Your task to perform on an android device: Open calendar and show me the second week of next month Image 0: 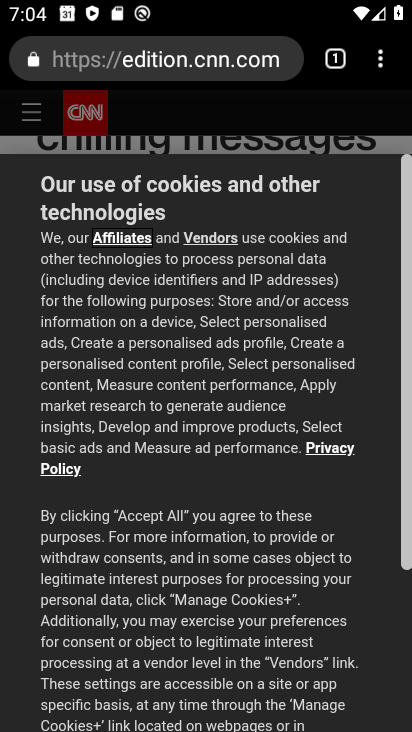
Step 0: press back button
Your task to perform on an android device: Open calendar and show me the second week of next month Image 1: 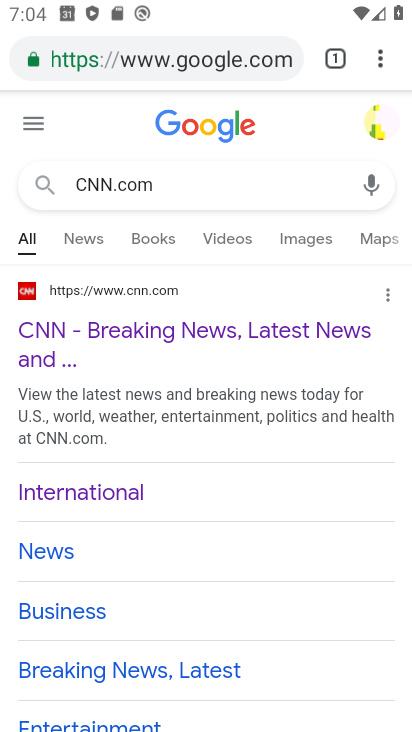
Step 1: press back button
Your task to perform on an android device: Open calendar and show me the second week of next month Image 2: 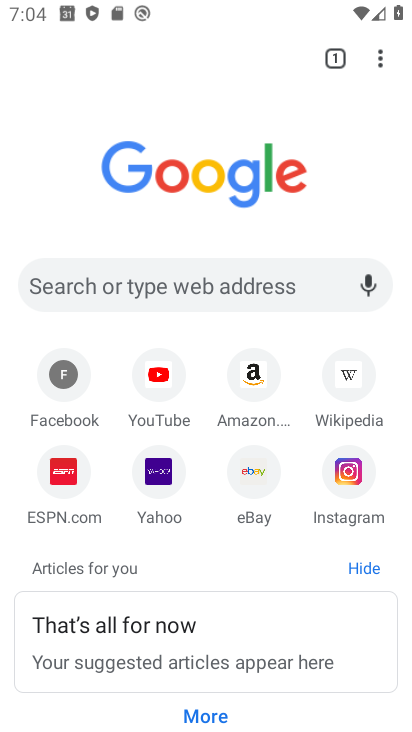
Step 2: press back button
Your task to perform on an android device: Open calendar and show me the second week of next month Image 3: 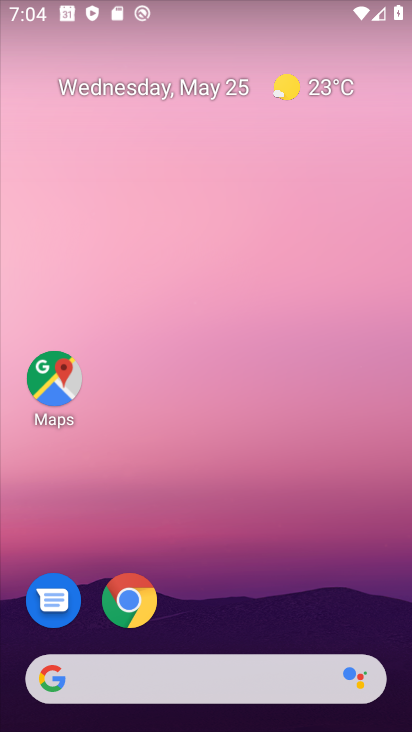
Step 3: drag from (256, 594) to (282, 134)
Your task to perform on an android device: Open calendar and show me the second week of next month Image 4: 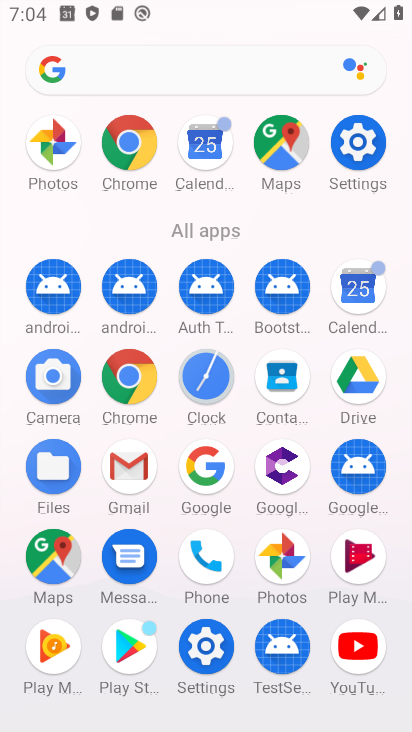
Step 4: click (360, 288)
Your task to perform on an android device: Open calendar and show me the second week of next month Image 5: 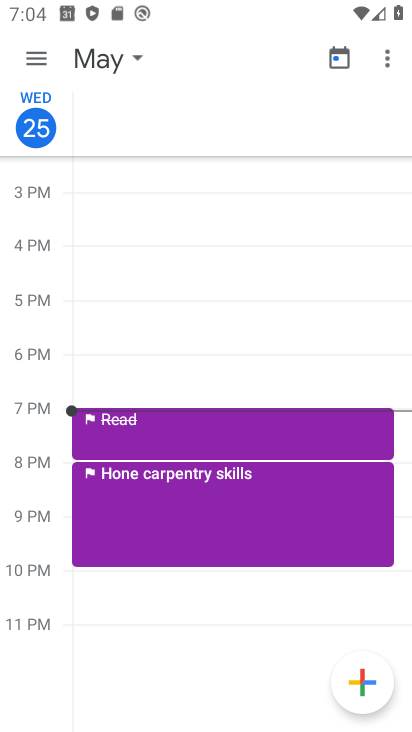
Step 5: click (135, 59)
Your task to perform on an android device: Open calendar and show me the second week of next month Image 6: 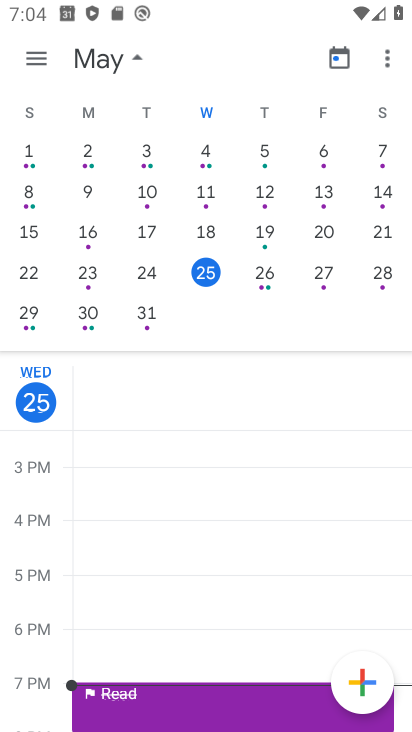
Step 6: drag from (351, 252) to (71, 292)
Your task to perform on an android device: Open calendar and show me the second week of next month Image 7: 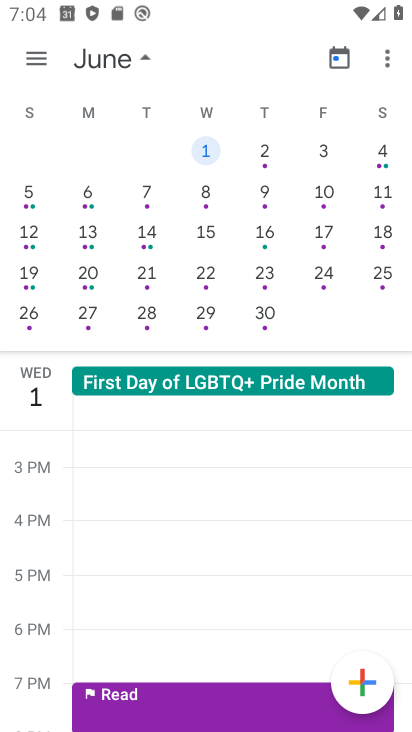
Step 7: click (89, 229)
Your task to perform on an android device: Open calendar and show me the second week of next month Image 8: 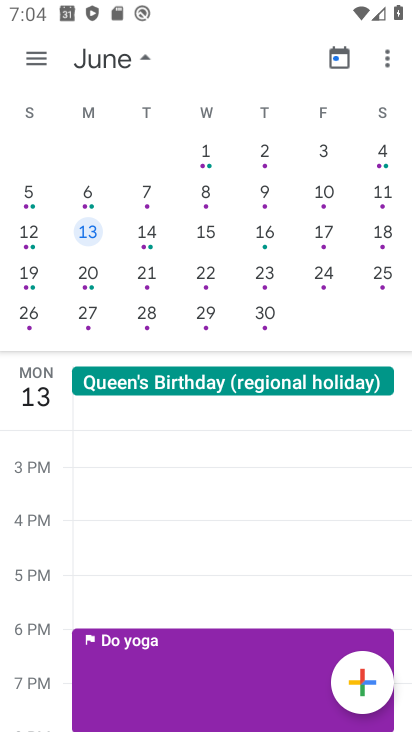
Step 8: click (42, 62)
Your task to perform on an android device: Open calendar and show me the second week of next month Image 9: 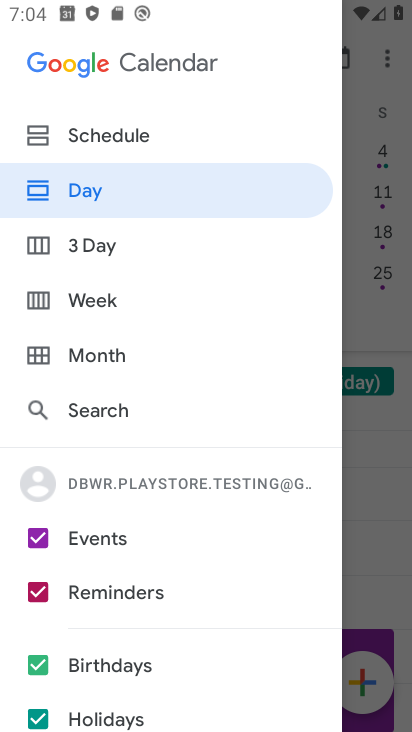
Step 9: click (90, 304)
Your task to perform on an android device: Open calendar and show me the second week of next month Image 10: 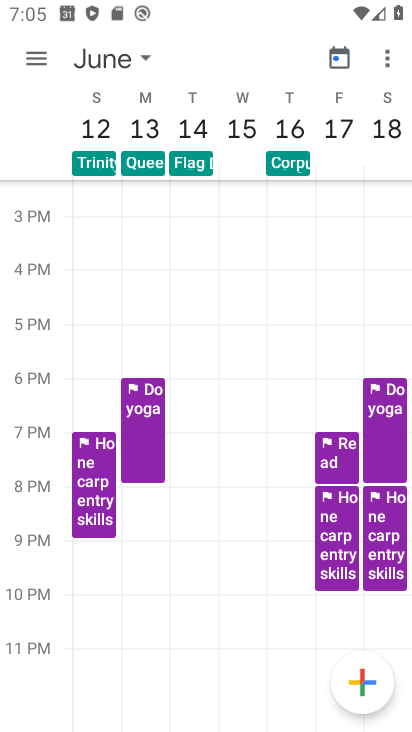
Step 10: task complete